Your task to perform on an android device: Open ESPN.com Image 0: 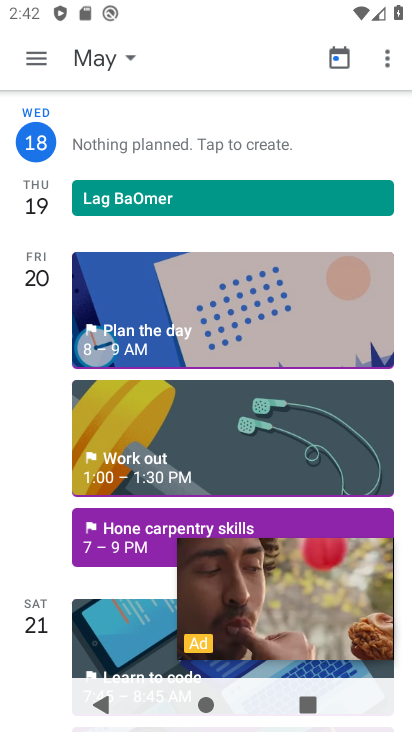
Step 0: press home button
Your task to perform on an android device: Open ESPN.com Image 1: 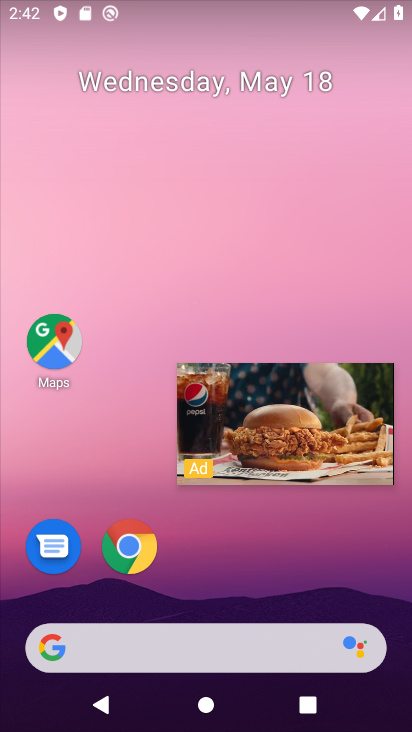
Step 1: click (351, 399)
Your task to perform on an android device: Open ESPN.com Image 2: 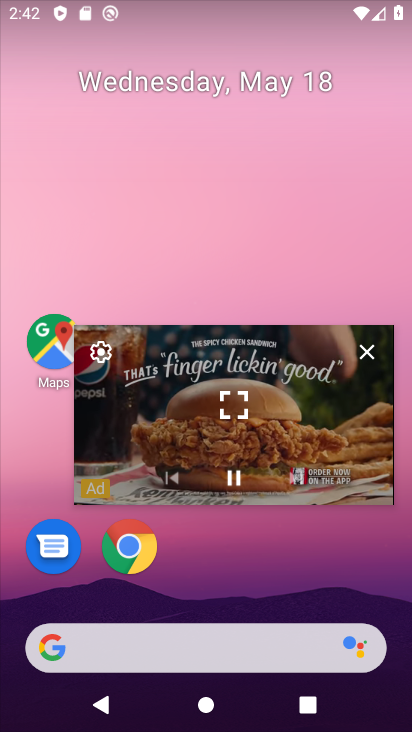
Step 2: click (362, 350)
Your task to perform on an android device: Open ESPN.com Image 3: 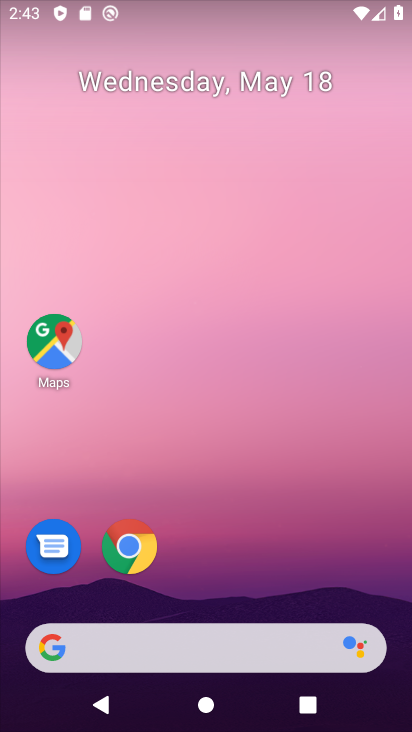
Step 3: click (117, 547)
Your task to perform on an android device: Open ESPN.com Image 4: 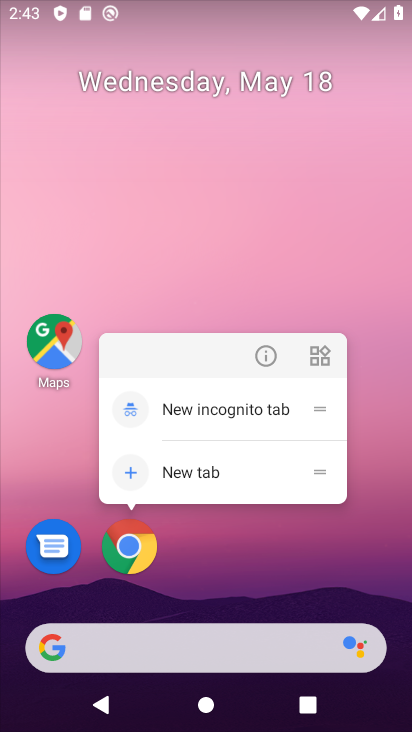
Step 4: click (122, 550)
Your task to perform on an android device: Open ESPN.com Image 5: 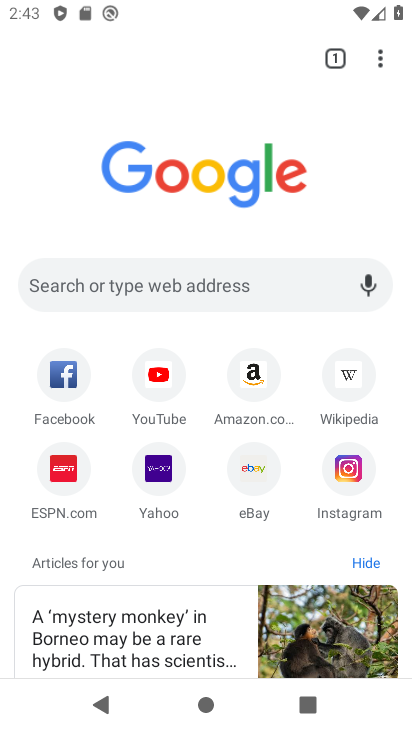
Step 5: click (79, 487)
Your task to perform on an android device: Open ESPN.com Image 6: 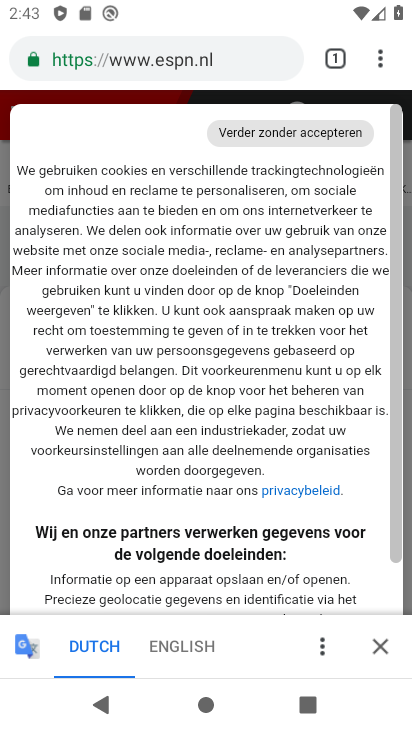
Step 6: drag from (225, 492) to (284, 324)
Your task to perform on an android device: Open ESPN.com Image 7: 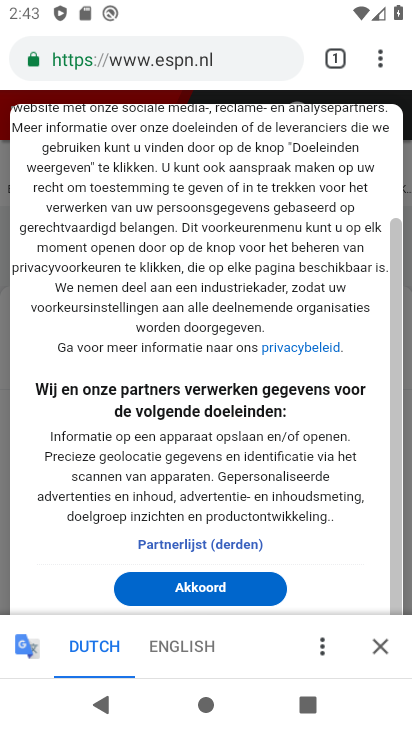
Step 7: click (225, 587)
Your task to perform on an android device: Open ESPN.com Image 8: 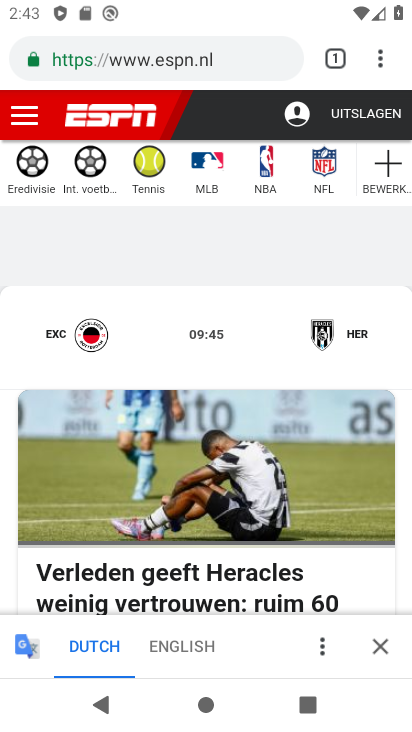
Step 8: click (199, 646)
Your task to perform on an android device: Open ESPN.com Image 9: 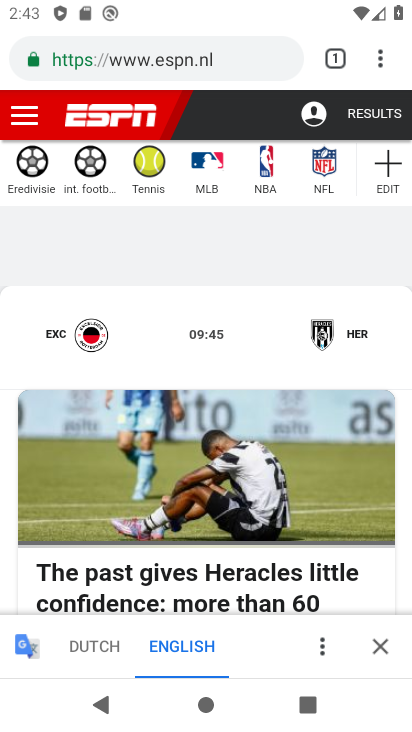
Step 9: task complete